Your task to perform on an android device: allow cookies in the chrome app Image 0: 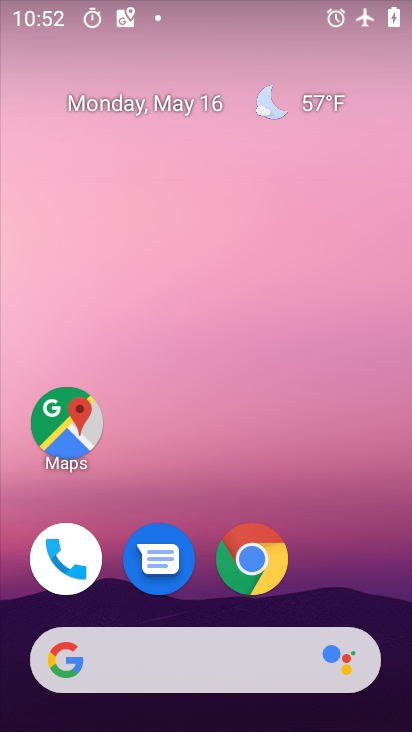
Step 0: click (247, 562)
Your task to perform on an android device: allow cookies in the chrome app Image 1: 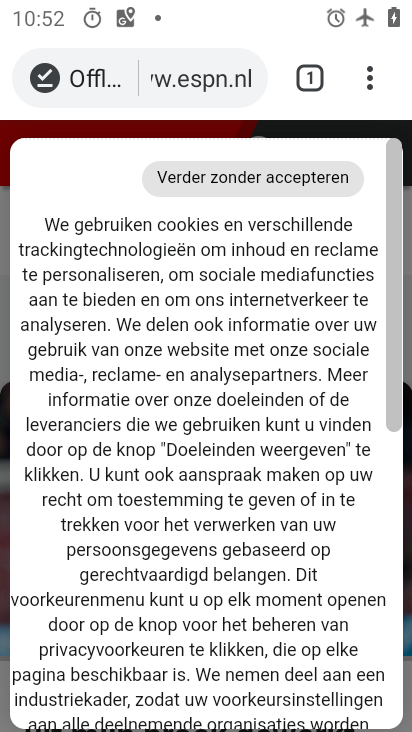
Step 1: drag from (369, 68) to (171, 620)
Your task to perform on an android device: allow cookies in the chrome app Image 2: 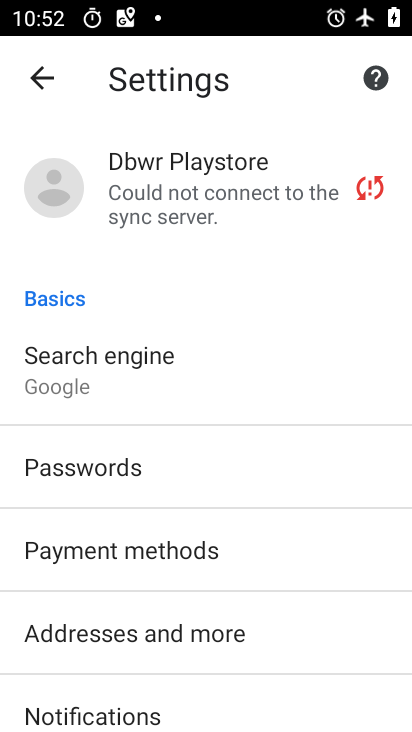
Step 2: drag from (294, 570) to (289, 141)
Your task to perform on an android device: allow cookies in the chrome app Image 3: 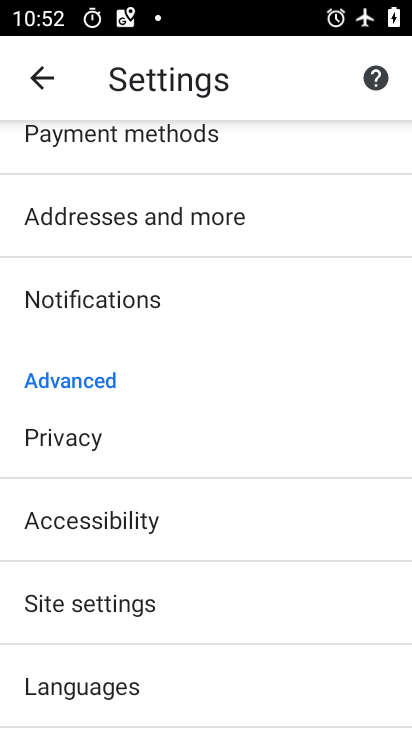
Step 3: click (118, 602)
Your task to perform on an android device: allow cookies in the chrome app Image 4: 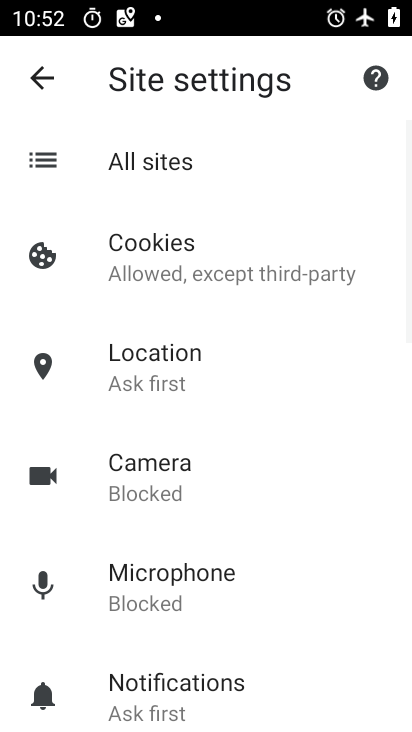
Step 4: click (306, 263)
Your task to perform on an android device: allow cookies in the chrome app Image 5: 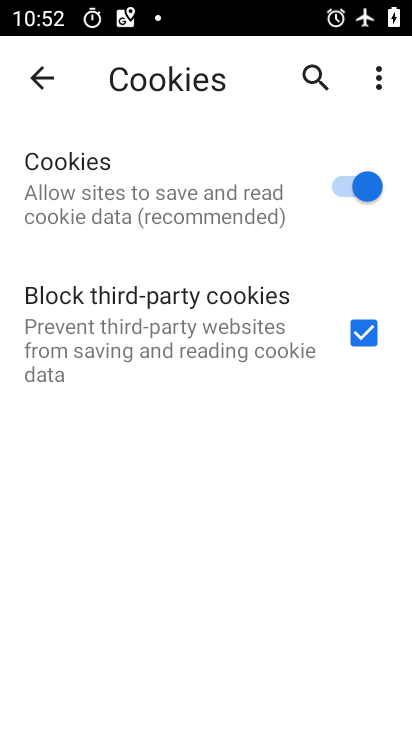
Step 5: task complete